Your task to perform on an android device: Go to eBay Image 0: 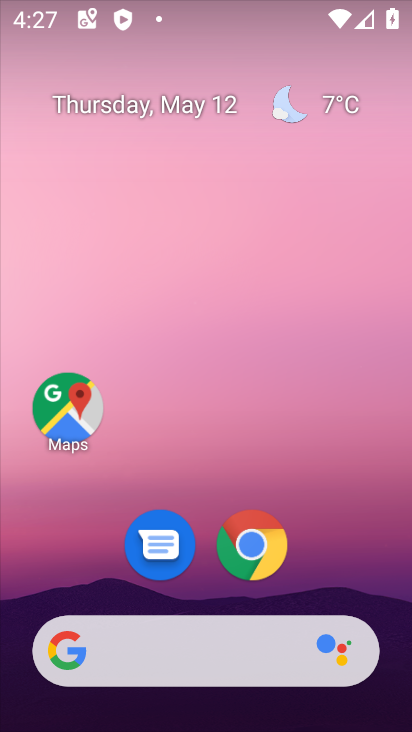
Step 0: click (259, 544)
Your task to perform on an android device: Go to eBay Image 1: 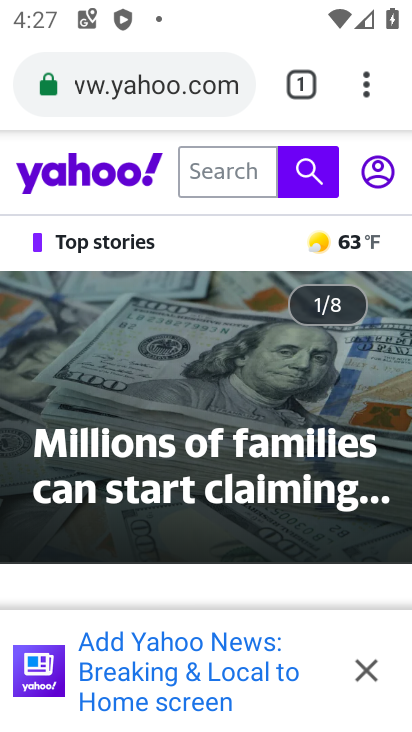
Step 1: click (130, 81)
Your task to perform on an android device: Go to eBay Image 2: 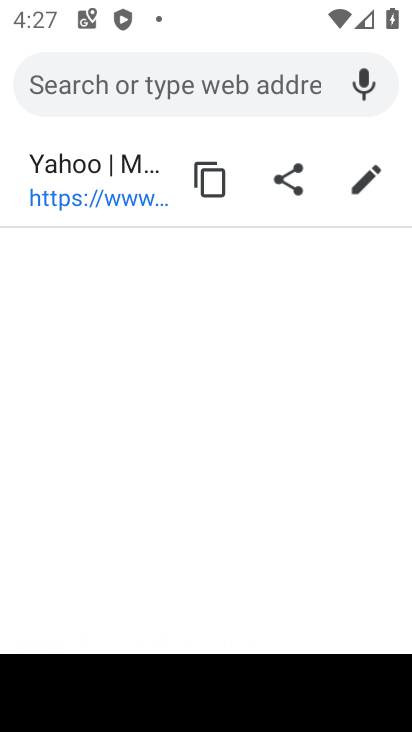
Step 2: click (129, 81)
Your task to perform on an android device: Go to eBay Image 3: 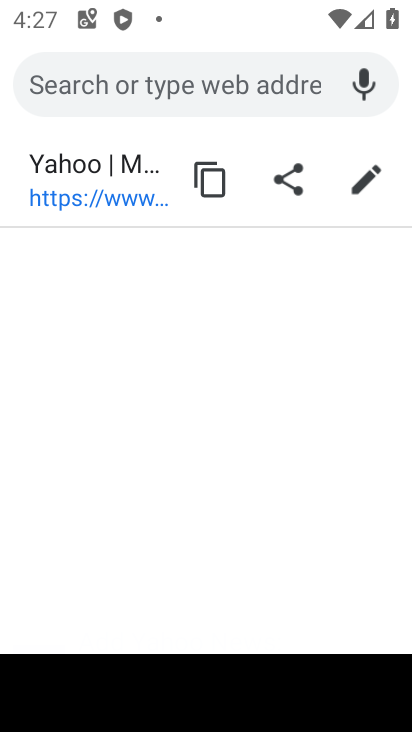
Step 3: type "ebay"
Your task to perform on an android device: Go to eBay Image 4: 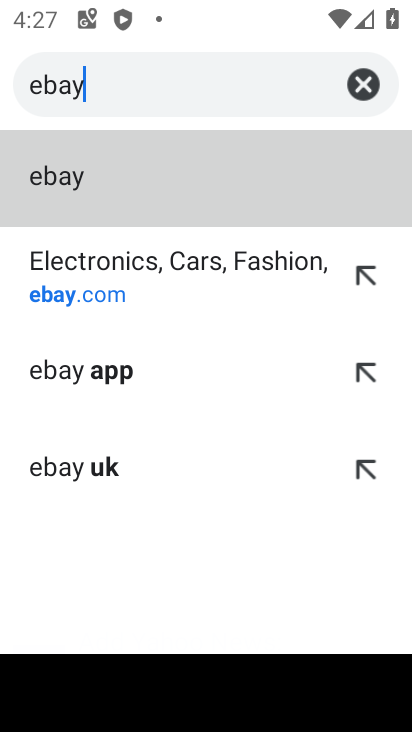
Step 4: click (74, 304)
Your task to perform on an android device: Go to eBay Image 5: 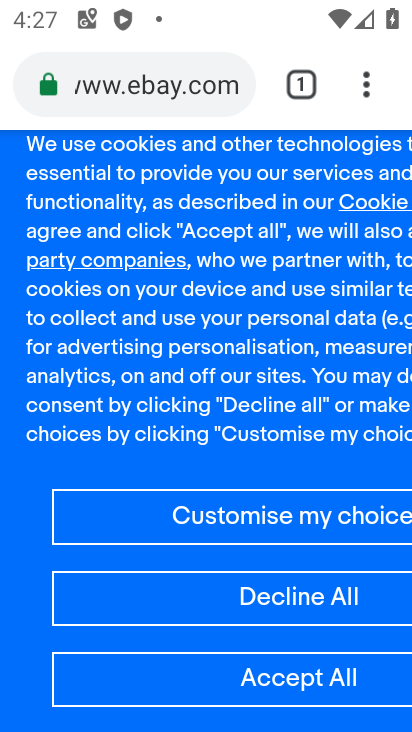
Step 5: task complete